Your task to perform on an android device: make emails show in primary in the gmail app Image 0: 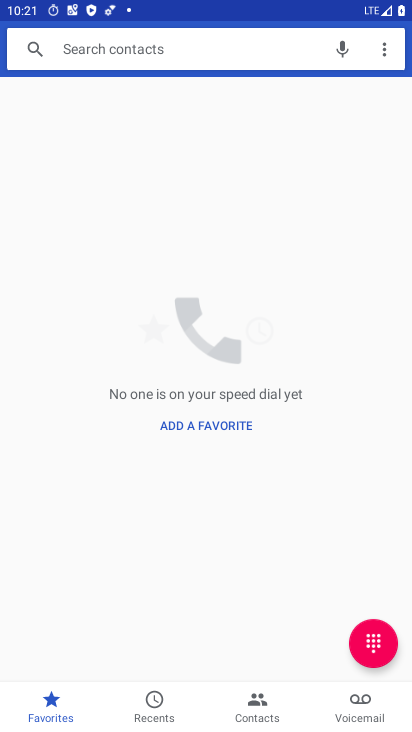
Step 0: press home button
Your task to perform on an android device: make emails show in primary in the gmail app Image 1: 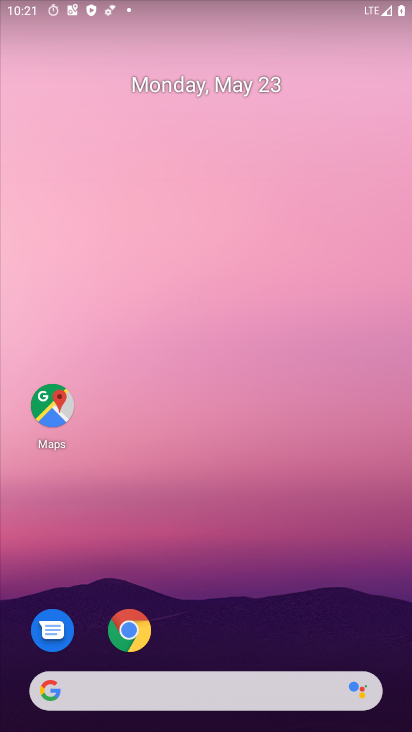
Step 1: drag from (220, 643) to (173, 32)
Your task to perform on an android device: make emails show in primary in the gmail app Image 2: 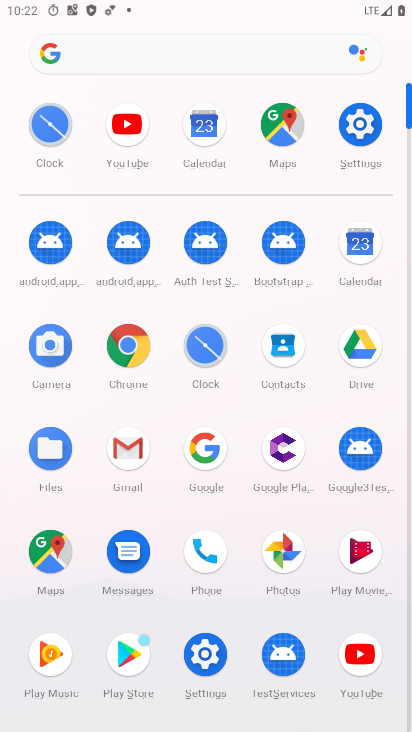
Step 2: click (120, 453)
Your task to perform on an android device: make emails show in primary in the gmail app Image 3: 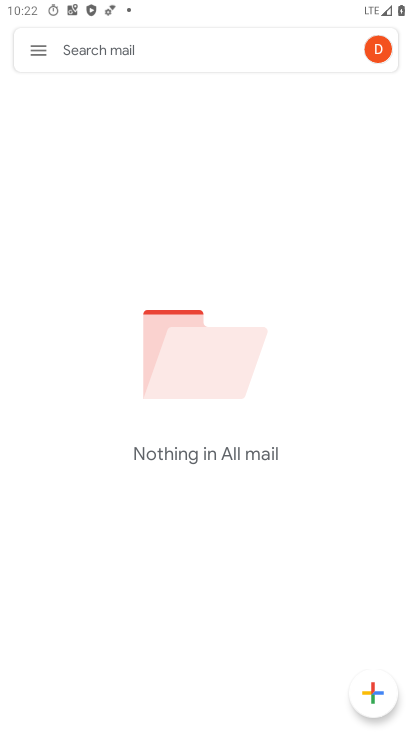
Step 3: click (36, 49)
Your task to perform on an android device: make emails show in primary in the gmail app Image 4: 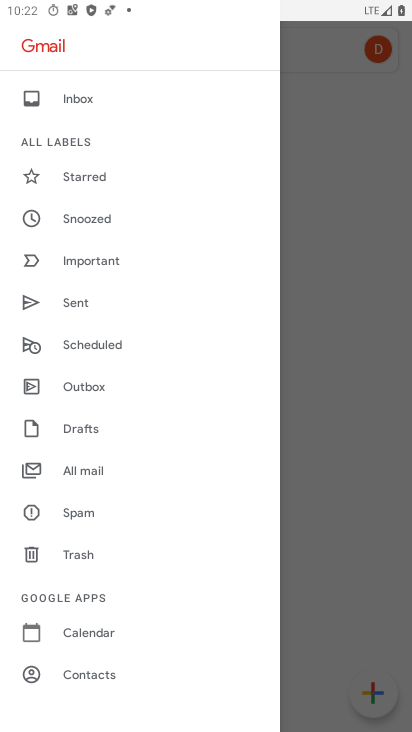
Step 4: drag from (178, 655) to (180, 314)
Your task to perform on an android device: make emails show in primary in the gmail app Image 5: 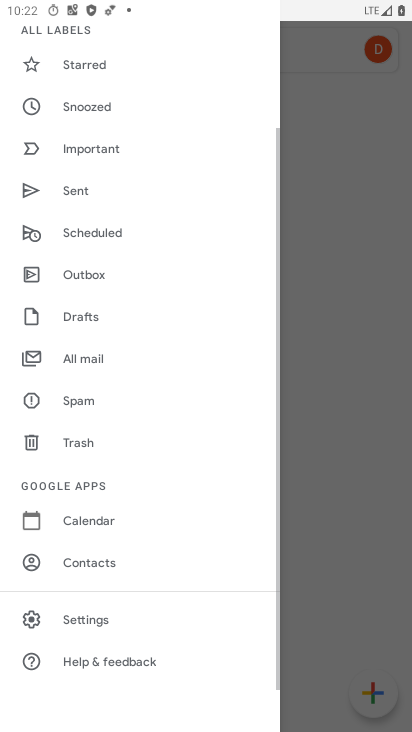
Step 5: click (61, 618)
Your task to perform on an android device: make emails show in primary in the gmail app Image 6: 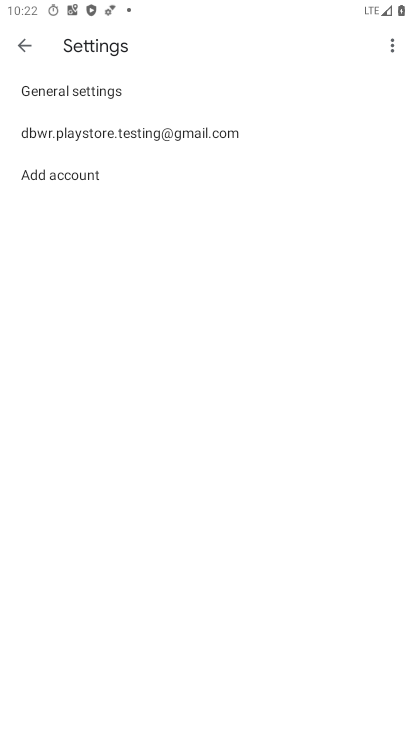
Step 6: click (56, 142)
Your task to perform on an android device: make emails show in primary in the gmail app Image 7: 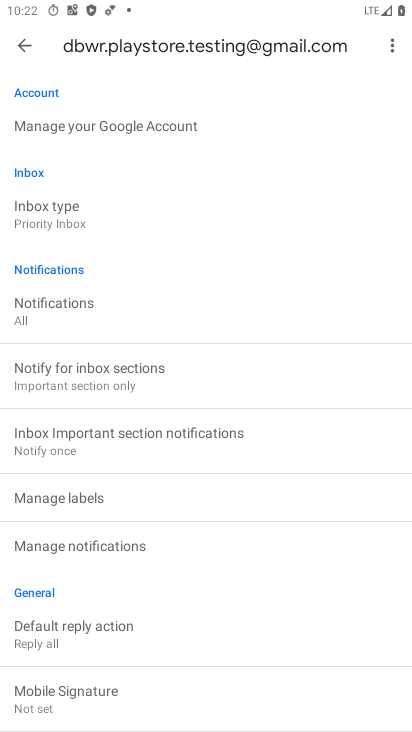
Step 7: task complete